Your task to perform on an android device: toggle airplane mode Image 0: 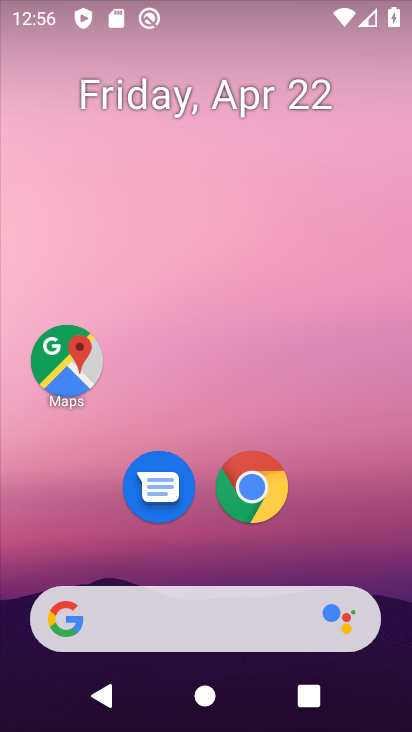
Step 0: drag from (219, 572) to (228, 135)
Your task to perform on an android device: toggle airplane mode Image 1: 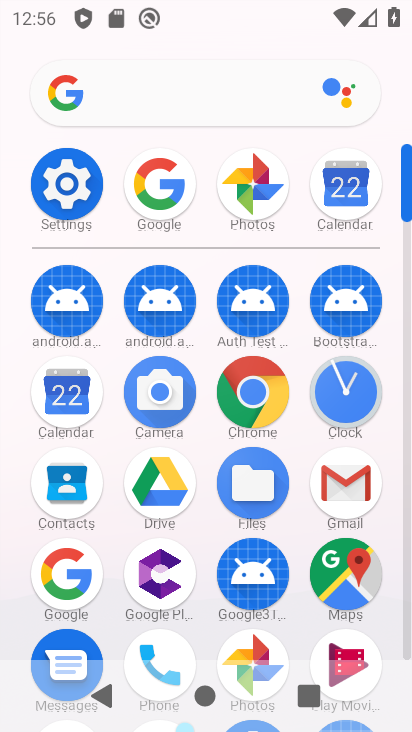
Step 1: click (65, 198)
Your task to perform on an android device: toggle airplane mode Image 2: 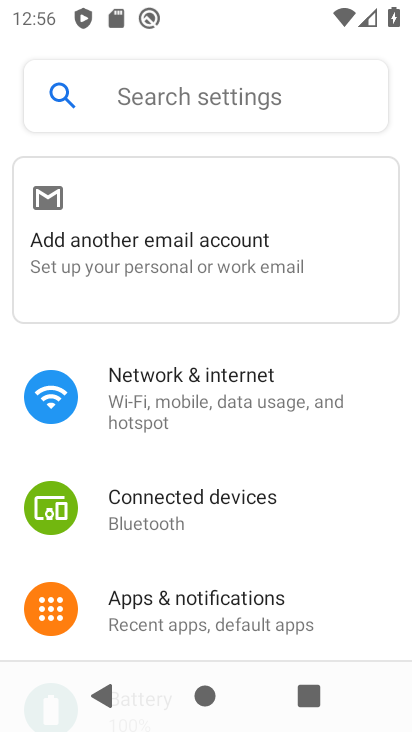
Step 2: drag from (249, 560) to (269, 340)
Your task to perform on an android device: toggle airplane mode Image 3: 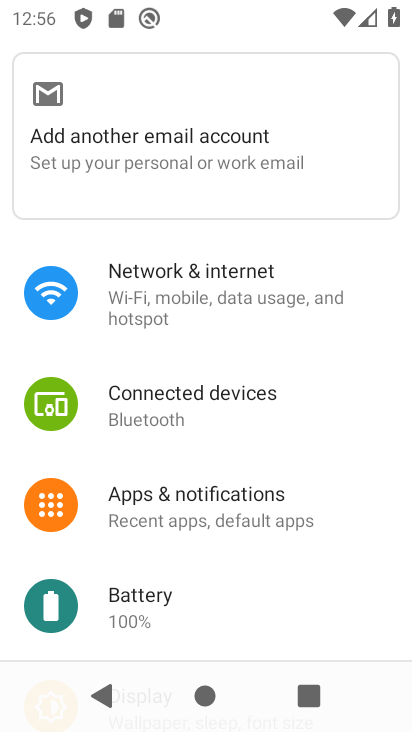
Step 3: click (236, 294)
Your task to perform on an android device: toggle airplane mode Image 4: 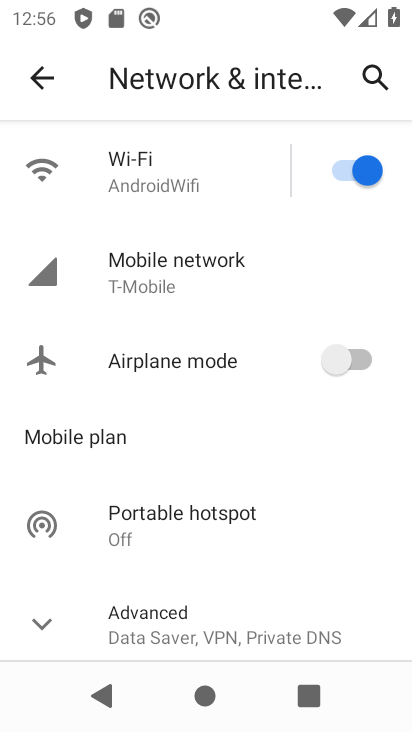
Step 4: click (368, 359)
Your task to perform on an android device: toggle airplane mode Image 5: 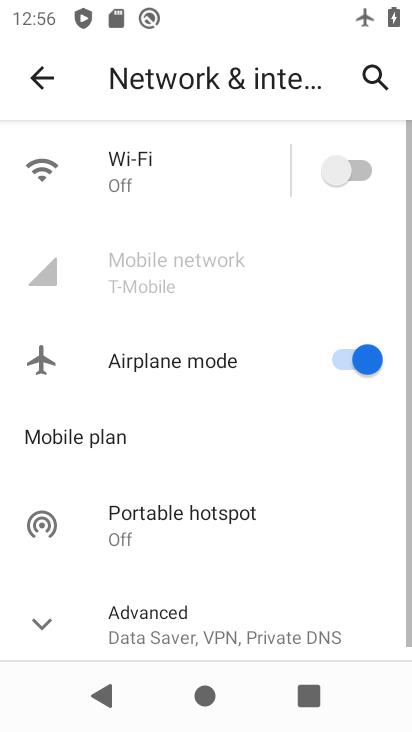
Step 5: task complete